Your task to perform on an android device: Open Google Image 0: 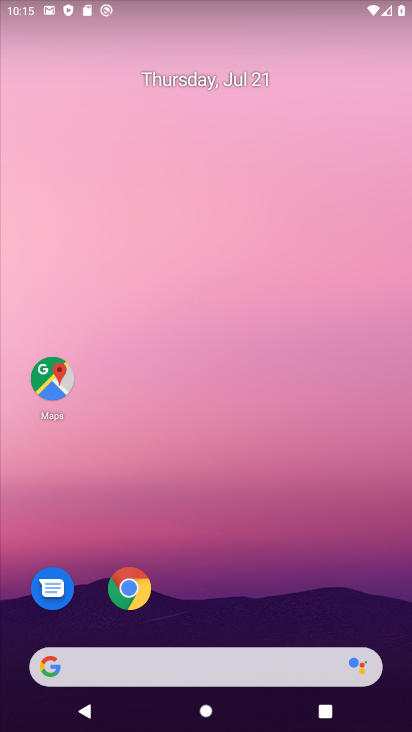
Step 0: drag from (198, 582) to (209, 269)
Your task to perform on an android device: Open Google Image 1: 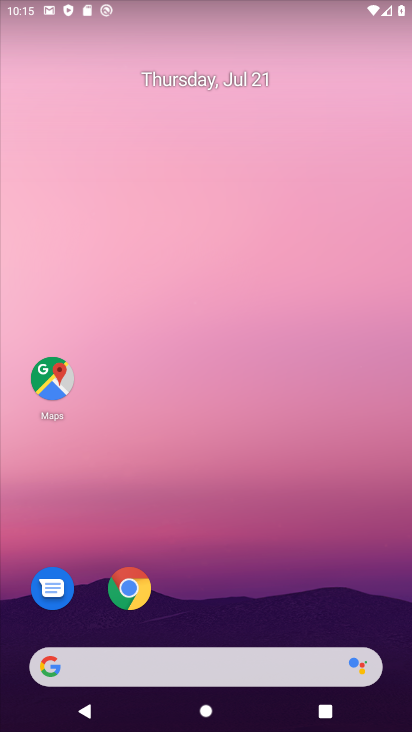
Step 1: drag from (181, 563) to (246, 241)
Your task to perform on an android device: Open Google Image 2: 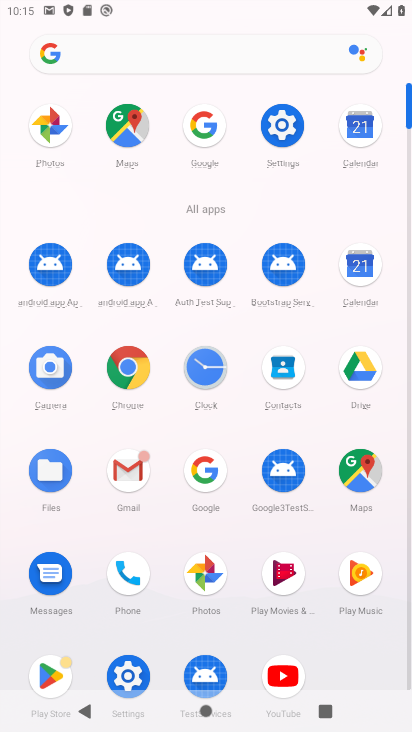
Step 2: click (202, 465)
Your task to perform on an android device: Open Google Image 3: 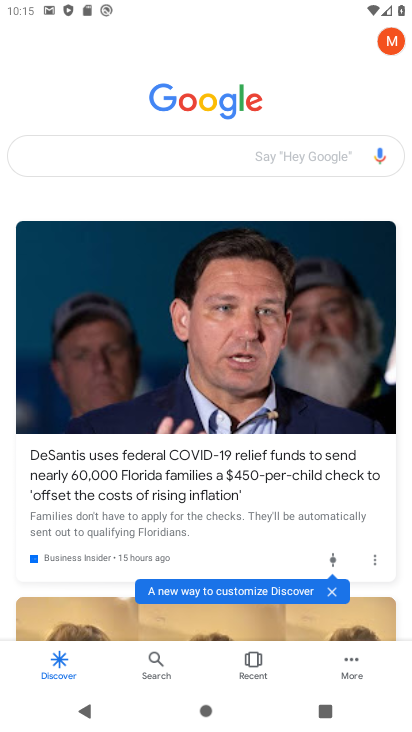
Step 3: task complete